Your task to perform on an android device: Do I have any events today? Image 0: 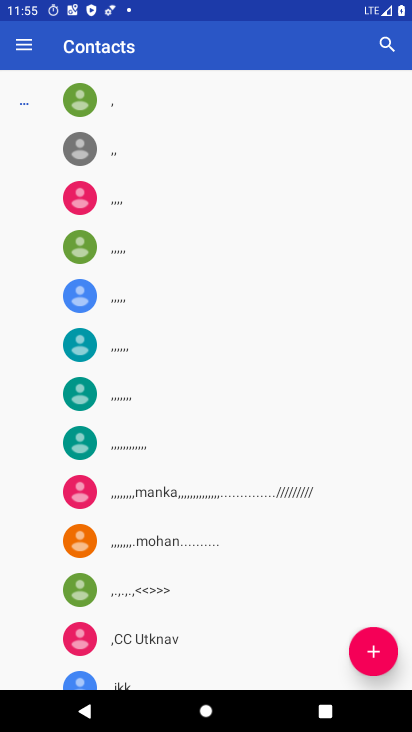
Step 0: press home button
Your task to perform on an android device: Do I have any events today? Image 1: 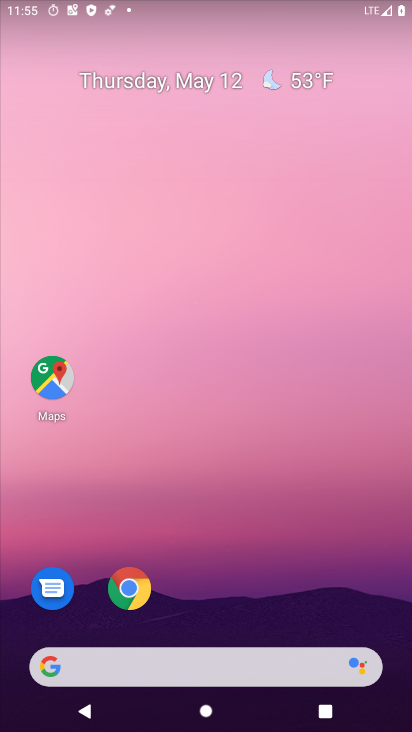
Step 1: drag from (306, 599) to (360, 216)
Your task to perform on an android device: Do I have any events today? Image 2: 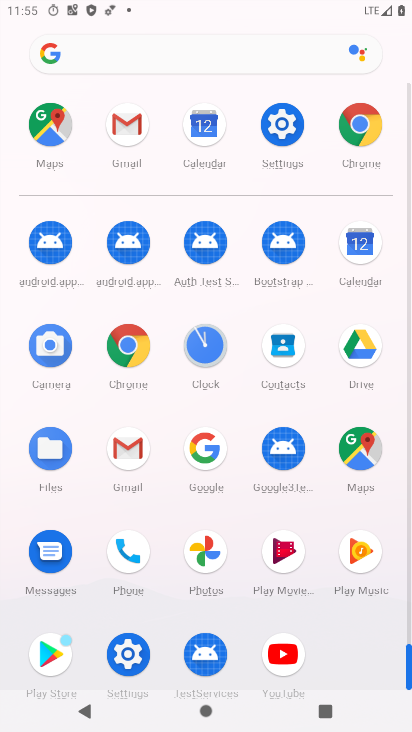
Step 2: click (351, 243)
Your task to perform on an android device: Do I have any events today? Image 3: 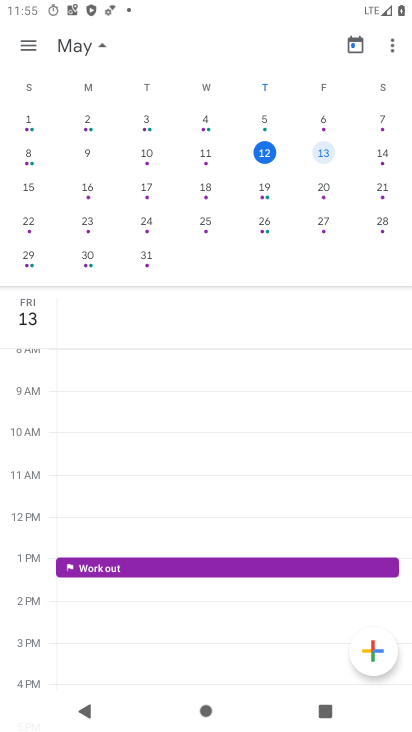
Step 3: click (264, 157)
Your task to perform on an android device: Do I have any events today? Image 4: 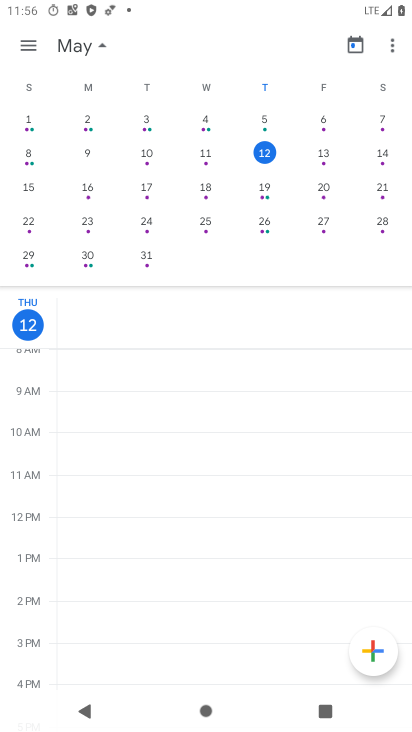
Step 4: task complete